Your task to perform on an android device: delete the emails in spam in the gmail app Image 0: 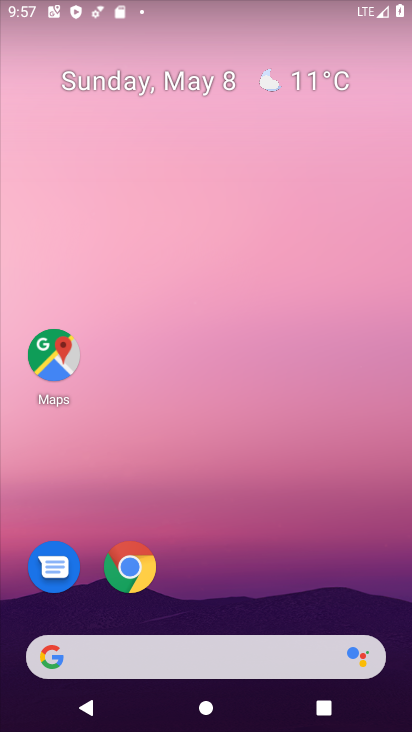
Step 0: drag from (199, 607) to (307, 27)
Your task to perform on an android device: delete the emails in spam in the gmail app Image 1: 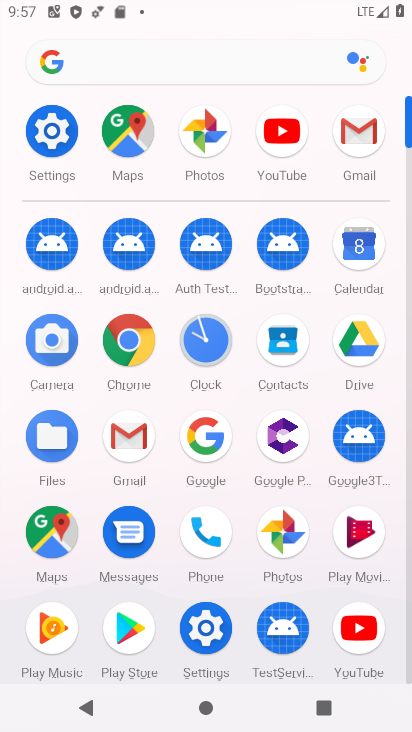
Step 1: click (355, 132)
Your task to perform on an android device: delete the emails in spam in the gmail app Image 2: 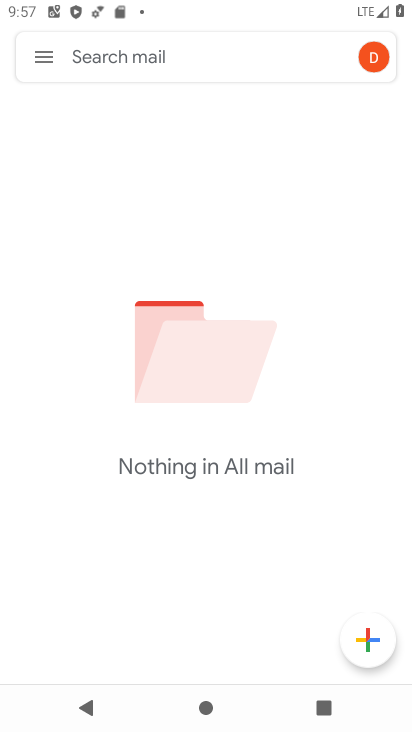
Step 2: click (29, 51)
Your task to perform on an android device: delete the emails in spam in the gmail app Image 3: 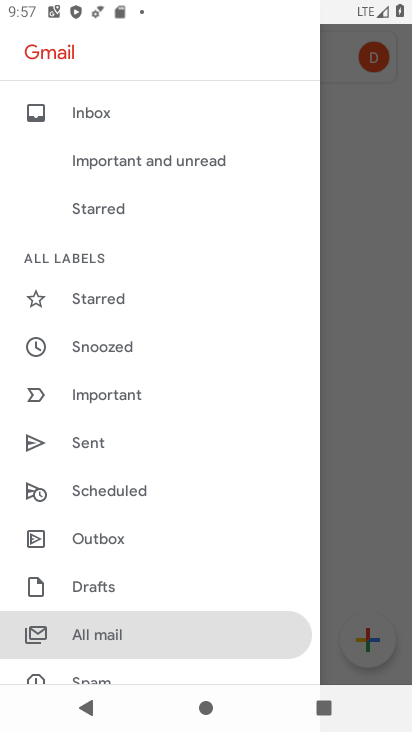
Step 3: drag from (145, 566) to (204, 230)
Your task to perform on an android device: delete the emails in spam in the gmail app Image 4: 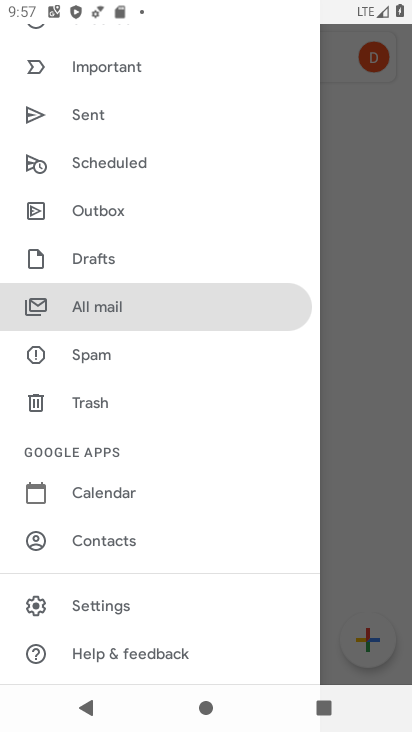
Step 4: click (95, 352)
Your task to perform on an android device: delete the emails in spam in the gmail app Image 5: 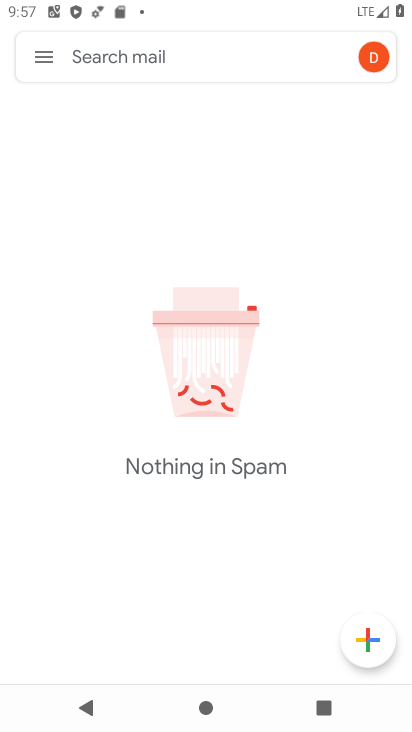
Step 5: task complete